Your task to perform on an android device: turn pop-ups on in chrome Image 0: 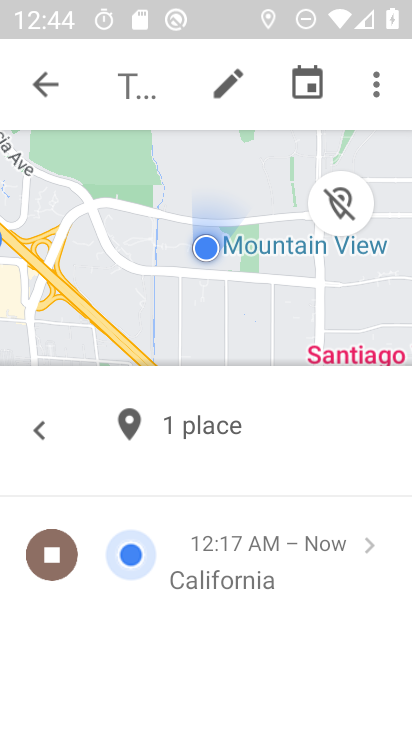
Step 0: press home button
Your task to perform on an android device: turn pop-ups on in chrome Image 1: 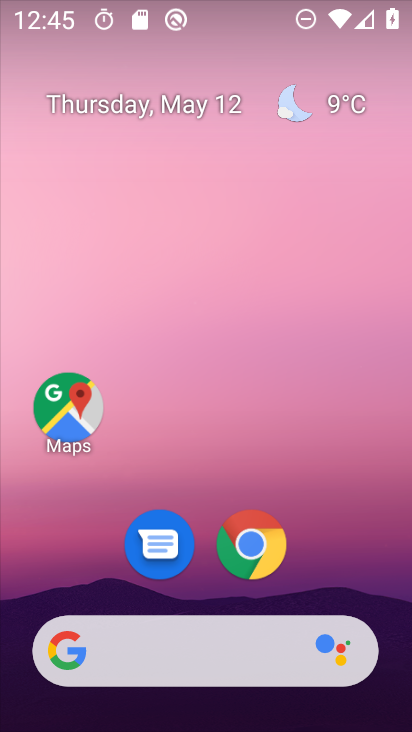
Step 1: click (251, 549)
Your task to perform on an android device: turn pop-ups on in chrome Image 2: 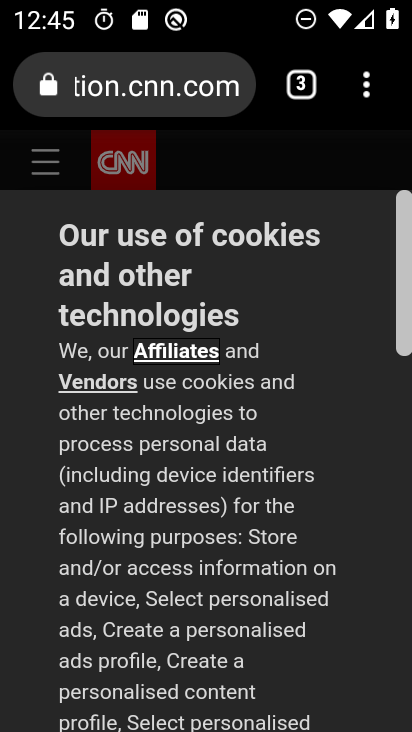
Step 2: click (368, 95)
Your task to perform on an android device: turn pop-ups on in chrome Image 3: 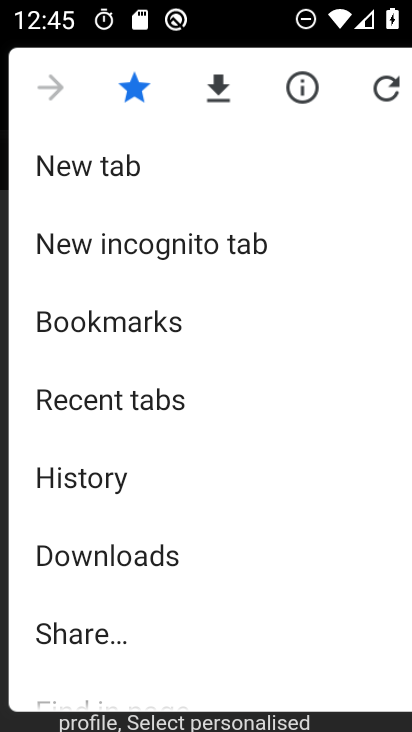
Step 3: drag from (137, 652) to (165, 288)
Your task to perform on an android device: turn pop-ups on in chrome Image 4: 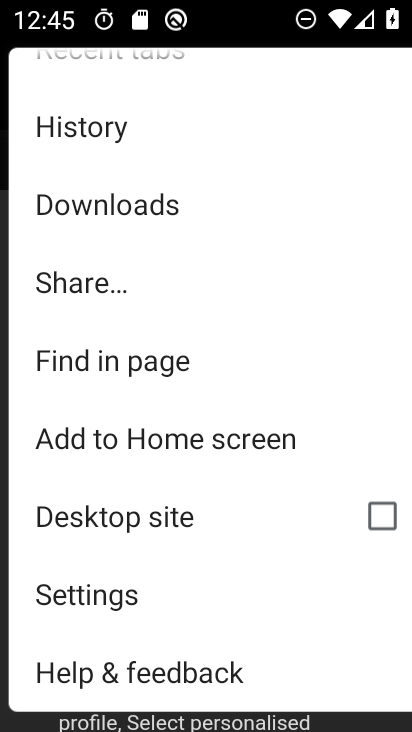
Step 4: click (100, 597)
Your task to perform on an android device: turn pop-ups on in chrome Image 5: 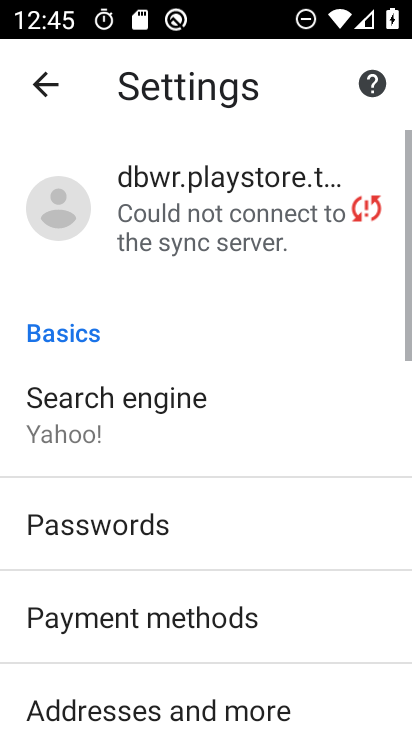
Step 5: drag from (144, 666) to (175, 256)
Your task to perform on an android device: turn pop-ups on in chrome Image 6: 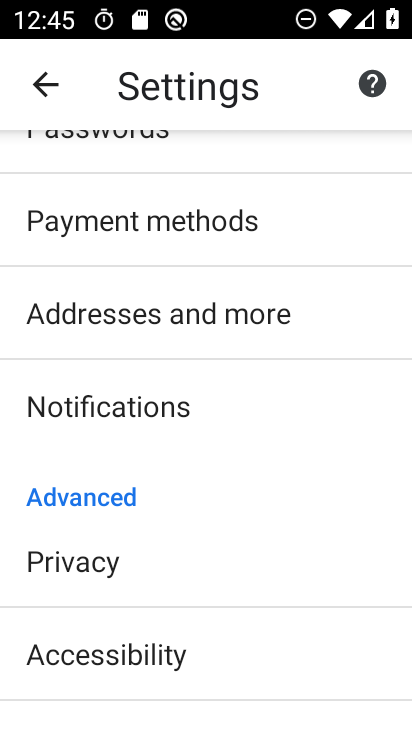
Step 6: drag from (129, 641) to (100, 285)
Your task to perform on an android device: turn pop-ups on in chrome Image 7: 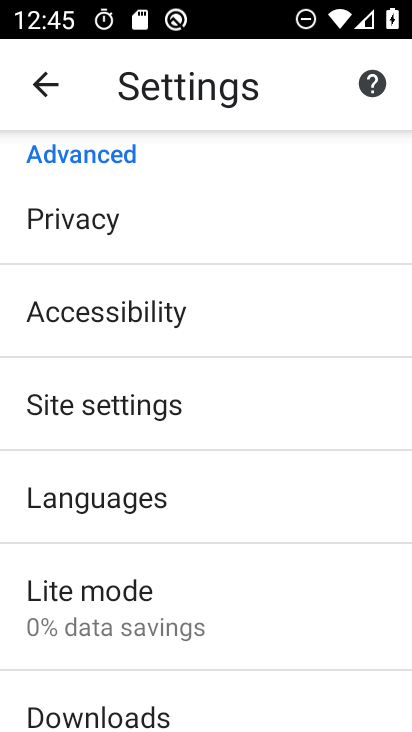
Step 7: click (95, 405)
Your task to perform on an android device: turn pop-ups on in chrome Image 8: 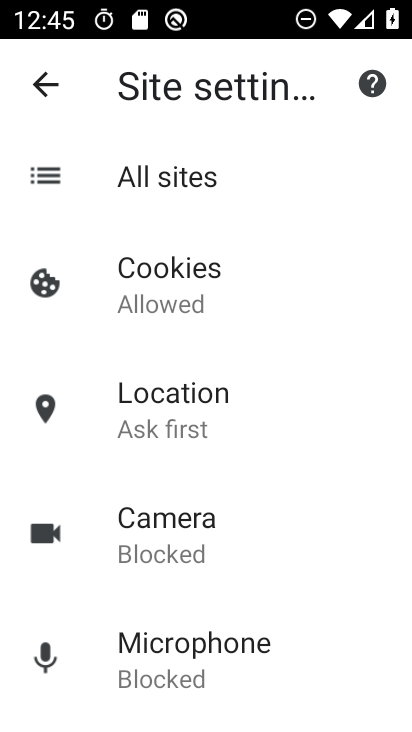
Step 8: drag from (213, 635) to (210, 336)
Your task to perform on an android device: turn pop-ups on in chrome Image 9: 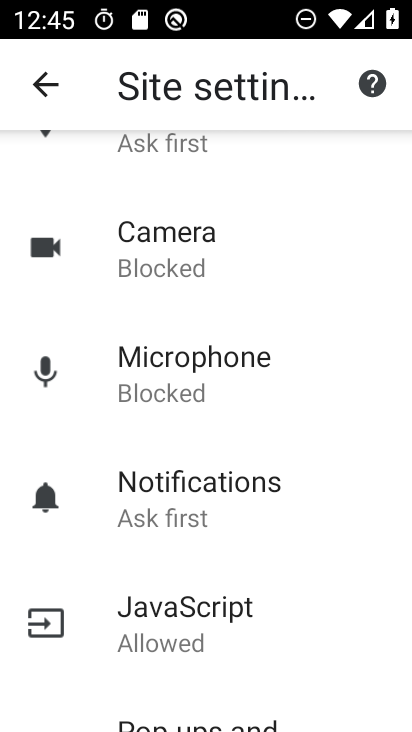
Step 9: drag from (179, 690) to (148, 256)
Your task to perform on an android device: turn pop-ups on in chrome Image 10: 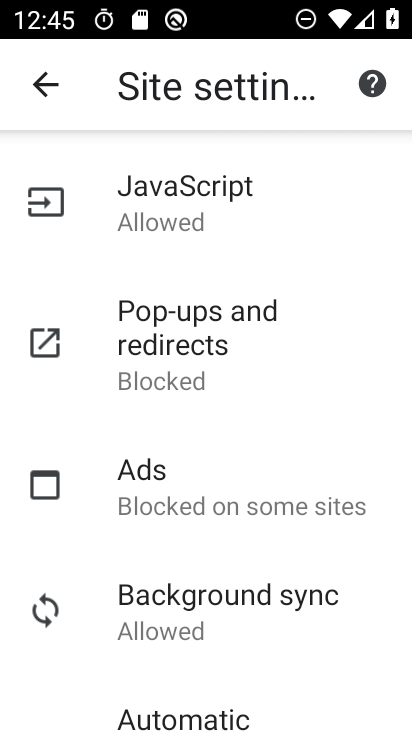
Step 10: click (159, 323)
Your task to perform on an android device: turn pop-ups on in chrome Image 11: 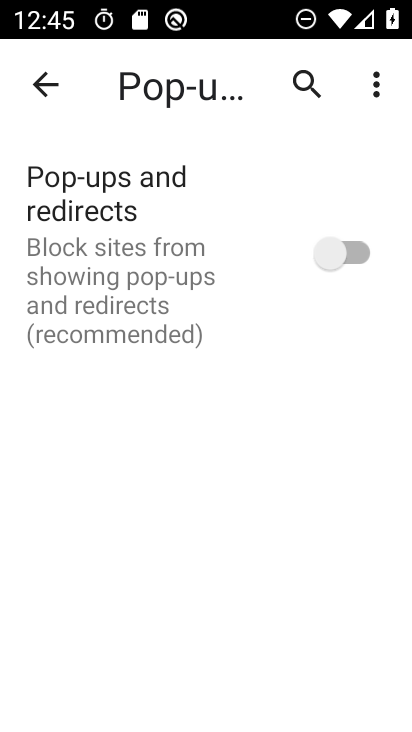
Step 11: click (358, 252)
Your task to perform on an android device: turn pop-ups on in chrome Image 12: 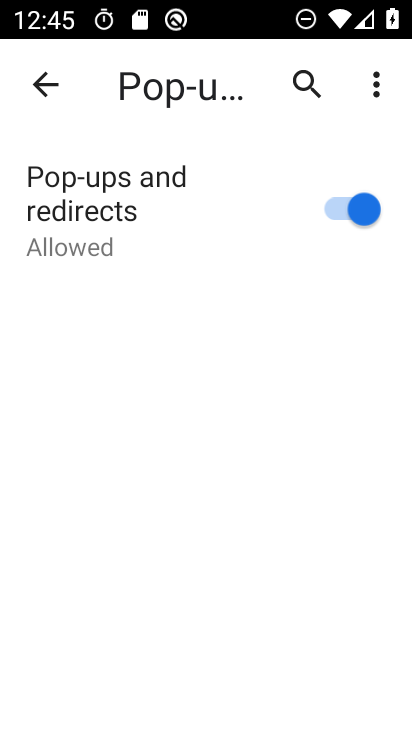
Step 12: task complete